Your task to perform on an android device: turn pop-ups off in chrome Image 0: 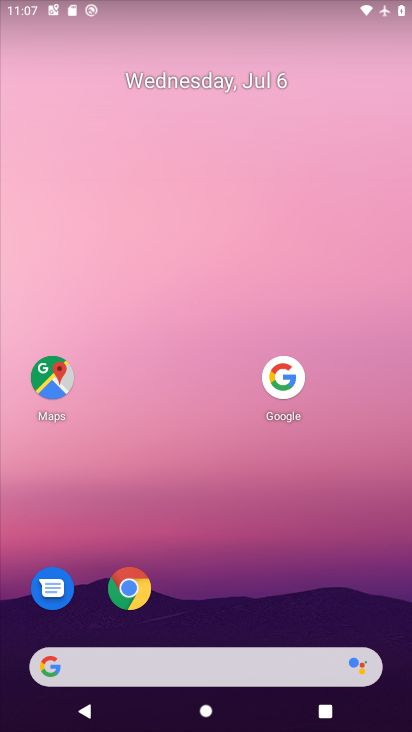
Step 0: click (128, 588)
Your task to perform on an android device: turn pop-ups off in chrome Image 1: 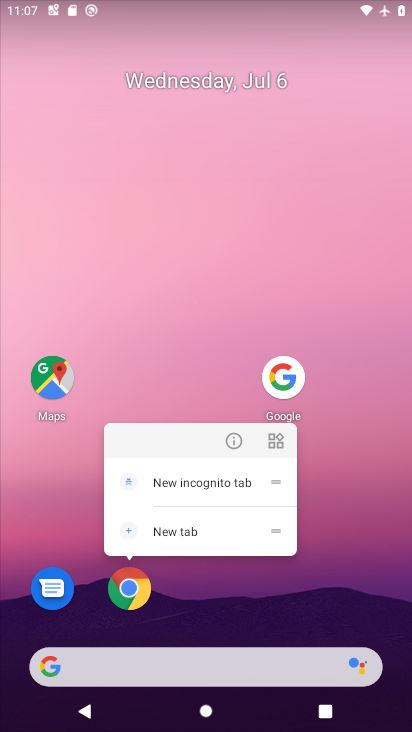
Step 1: click (128, 589)
Your task to perform on an android device: turn pop-ups off in chrome Image 2: 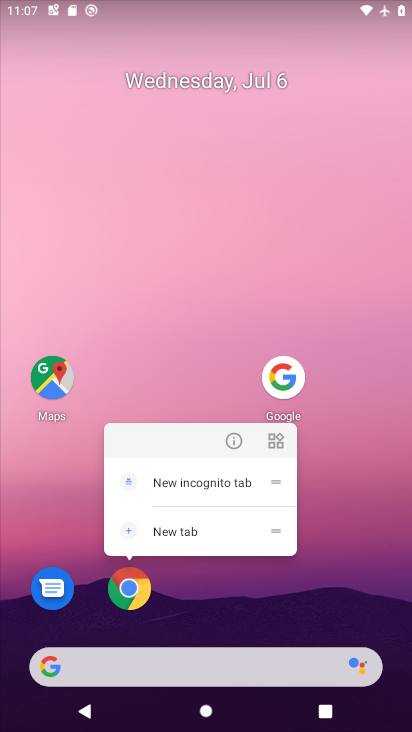
Step 2: click (130, 597)
Your task to perform on an android device: turn pop-ups off in chrome Image 3: 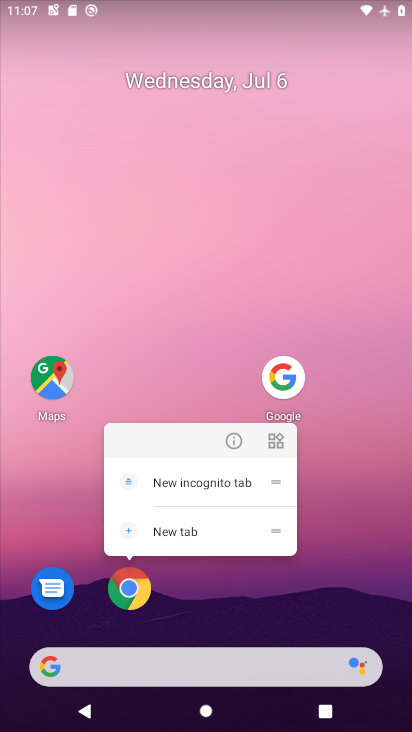
Step 3: click (130, 601)
Your task to perform on an android device: turn pop-ups off in chrome Image 4: 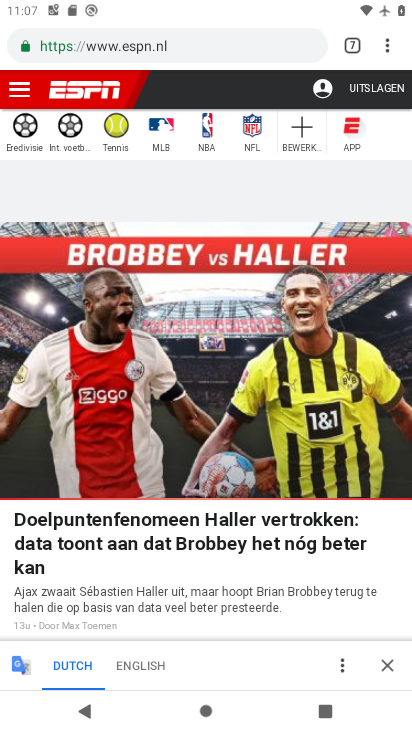
Step 4: click (387, 57)
Your task to perform on an android device: turn pop-ups off in chrome Image 5: 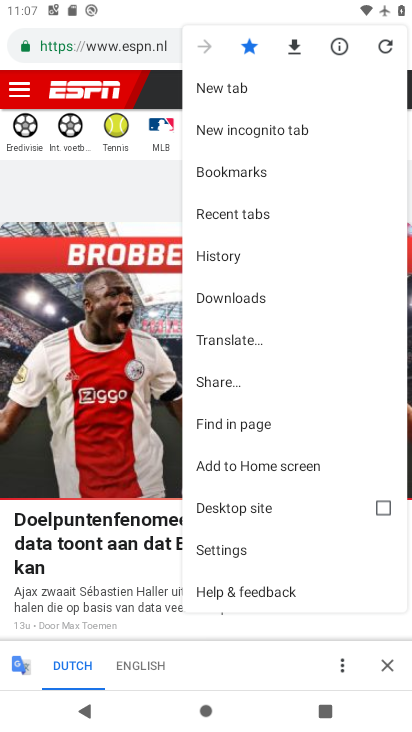
Step 5: click (242, 545)
Your task to perform on an android device: turn pop-ups off in chrome Image 6: 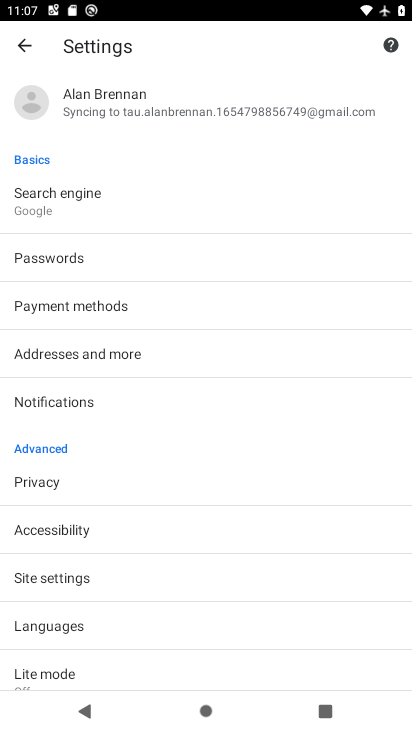
Step 6: click (74, 577)
Your task to perform on an android device: turn pop-ups off in chrome Image 7: 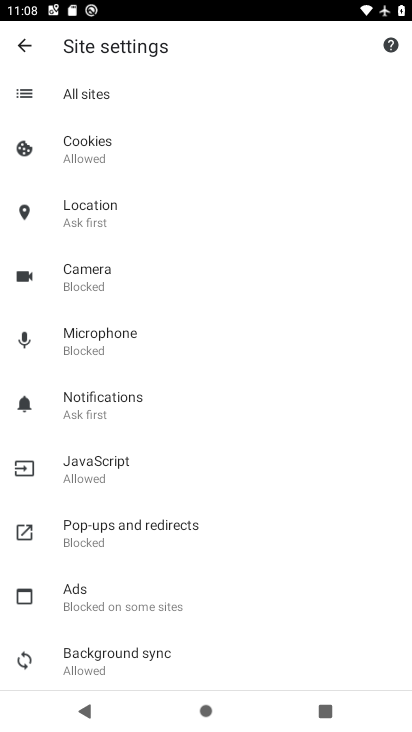
Step 7: click (89, 528)
Your task to perform on an android device: turn pop-ups off in chrome Image 8: 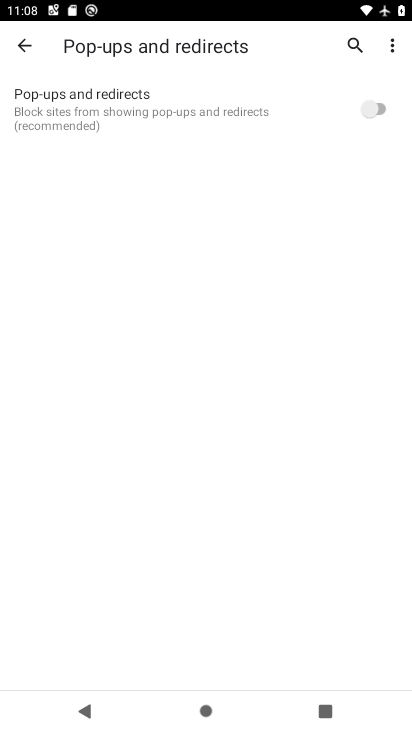
Step 8: task complete